Your task to perform on an android device: delete browsing data in the chrome app Image 0: 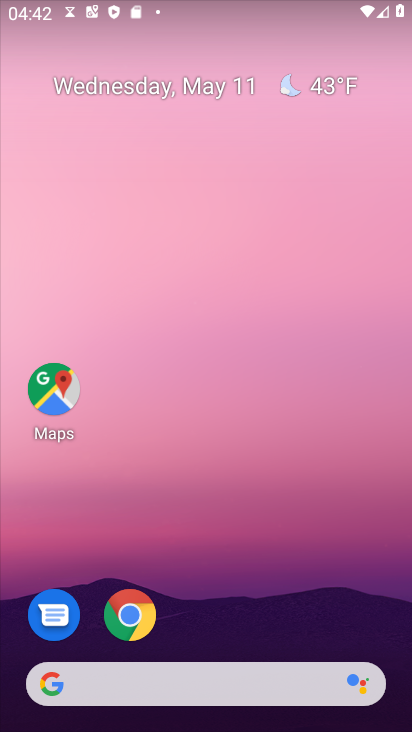
Step 0: drag from (286, 491) to (251, 16)
Your task to perform on an android device: delete browsing data in the chrome app Image 1: 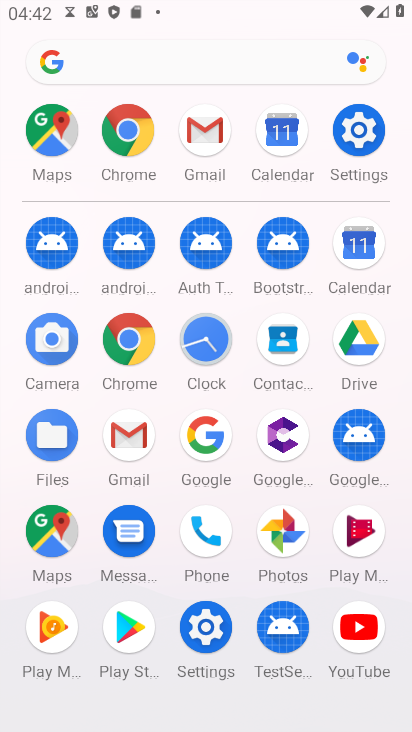
Step 1: click (129, 124)
Your task to perform on an android device: delete browsing data in the chrome app Image 2: 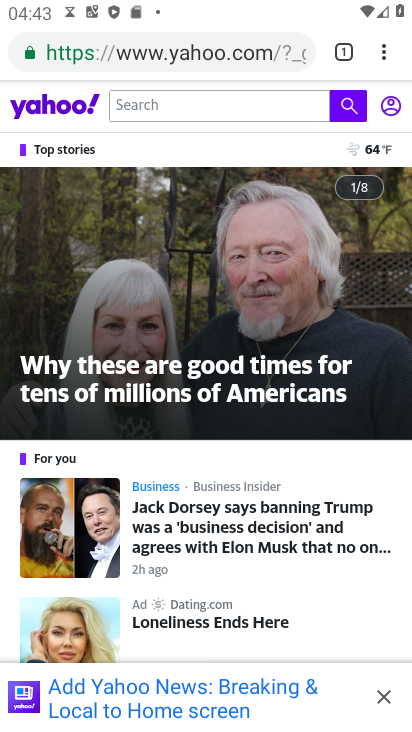
Step 2: drag from (385, 52) to (234, 284)
Your task to perform on an android device: delete browsing data in the chrome app Image 3: 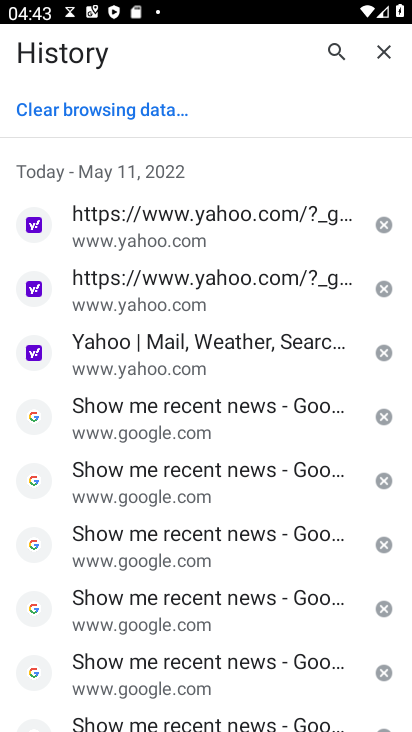
Step 3: click (111, 100)
Your task to perform on an android device: delete browsing data in the chrome app Image 4: 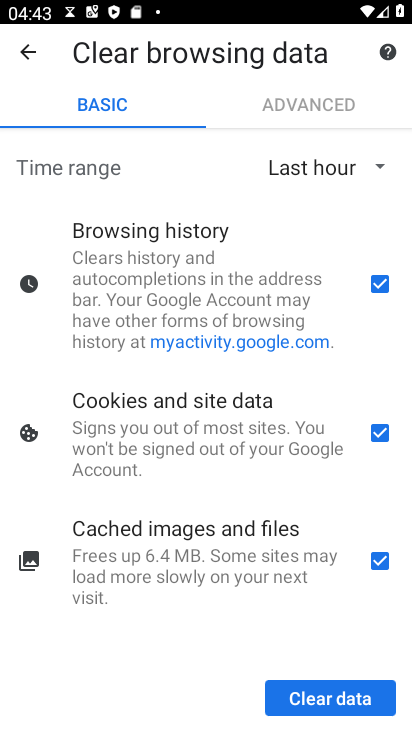
Step 4: click (345, 701)
Your task to perform on an android device: delete browsing data in the chrome app Image 5: 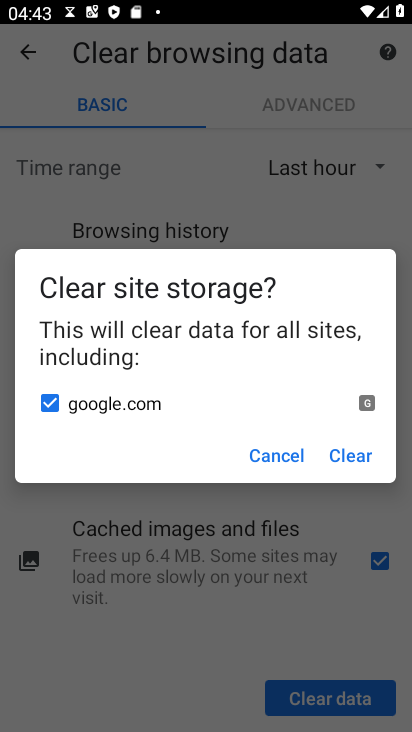
Step 5: click (351, 446)
Your task to perform on an android device: delete browsing data in the chrome app Image 6: 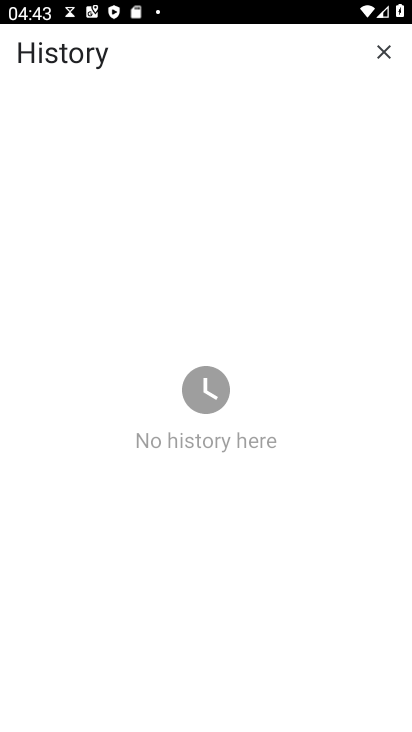
Step 6: task complete